Your task to perform on an android device: View the shopping cart on newegg. Image 0: 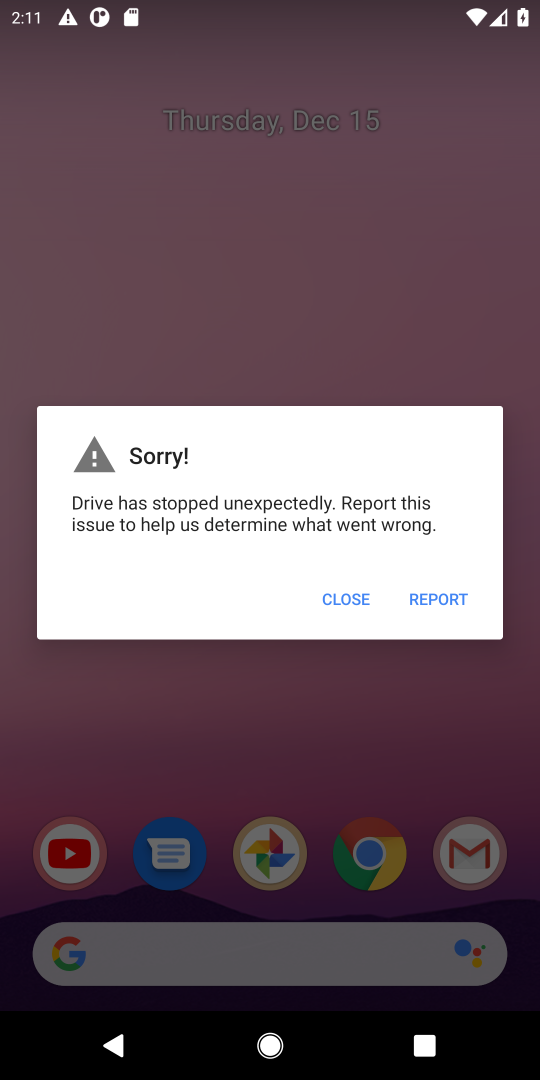
Step 0: press home button
Your task to perform on an android device: View the shopping cart on newegg. Image 1: 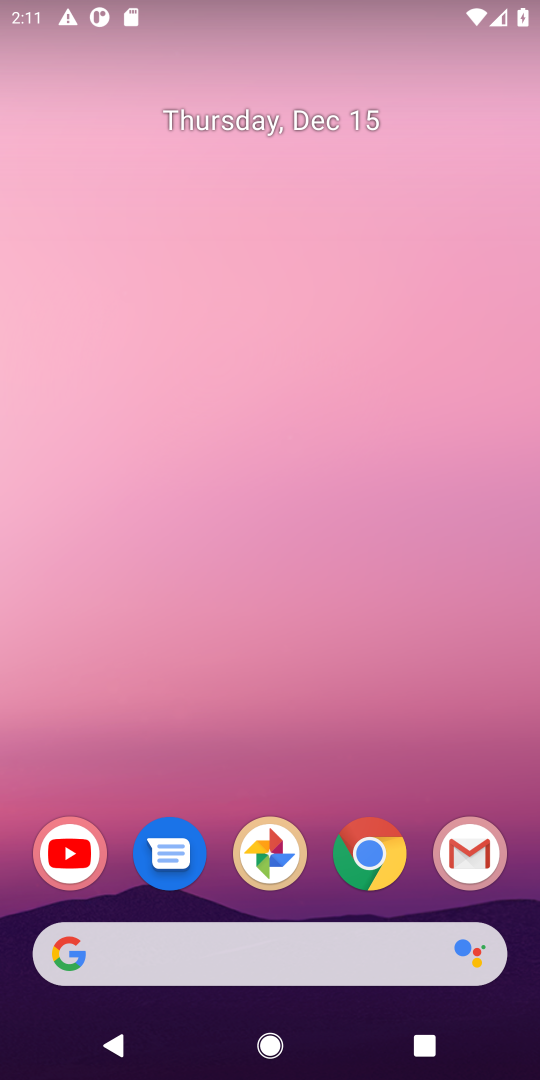
Step 1: drag from (174, 877) to (173, 318)
Your task to perform on an android device: View the shopping cart on newegg. Image 2: 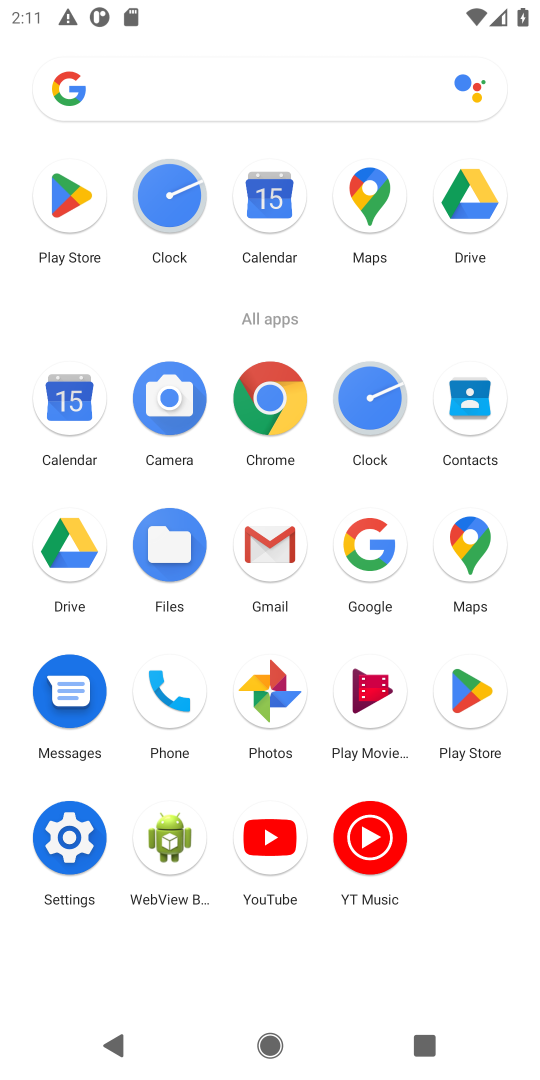
Step 2: click (388, 560)
Your task to perform on an android device: View the shopping cart on newegg. Image 3: 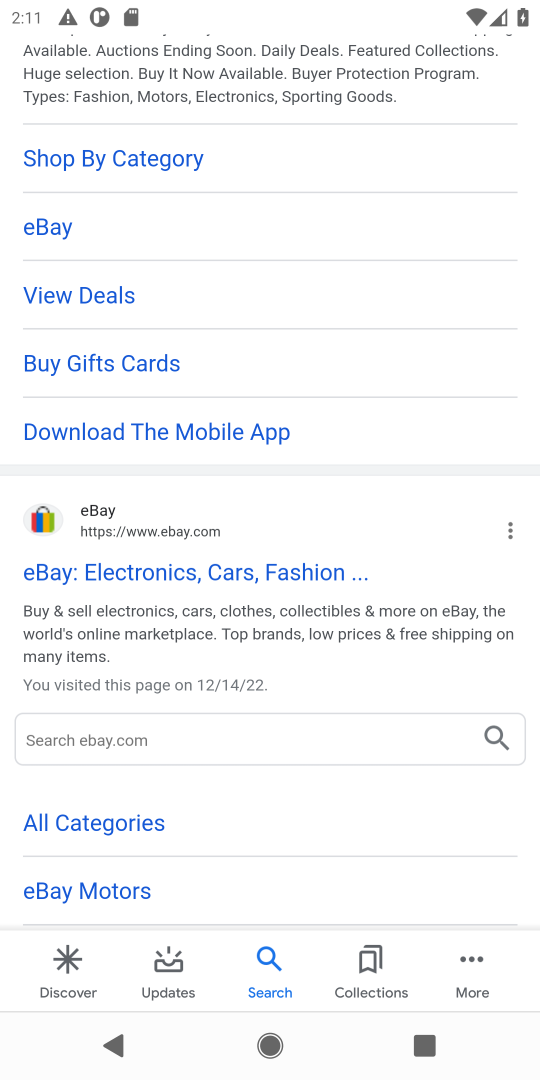
Step 3: drag from (106, 149) to (186, 782)
Your task to perform on an android device: View the shopping cart on newegg. Image 4: 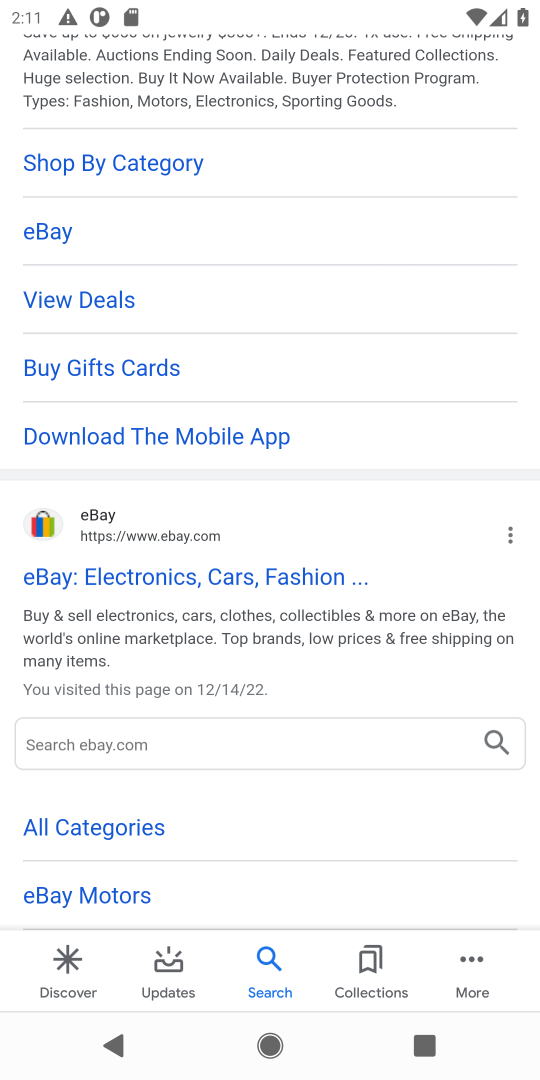
Step 4: drag from (121, 160) to (253, 882)
Your task to perform on an android device: View the shopping cart on newegg. Image 5: 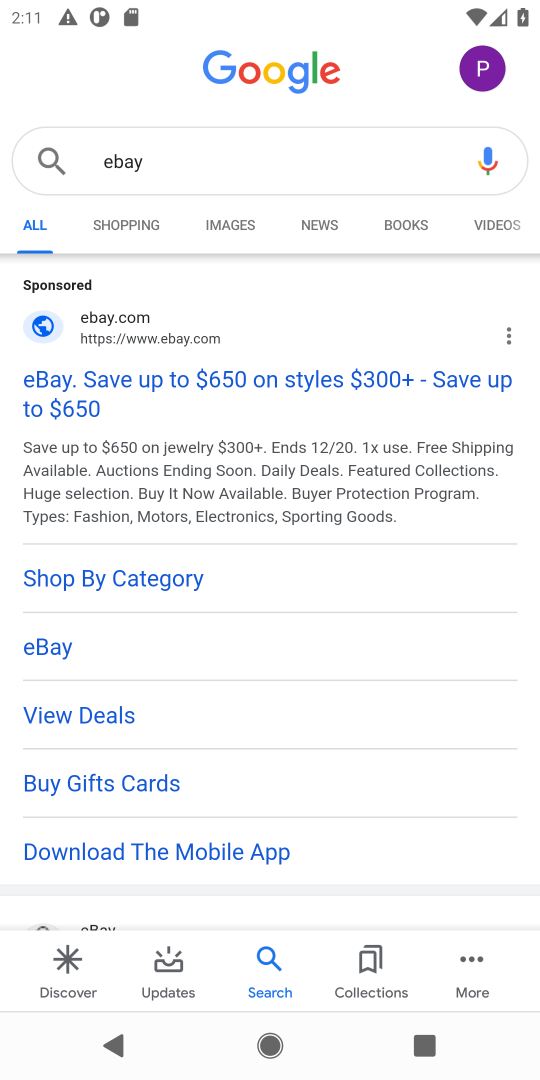
Step 5: click (121, 169)
Your task to perform on an android device: View the shopping cart on newegg. Image 6: 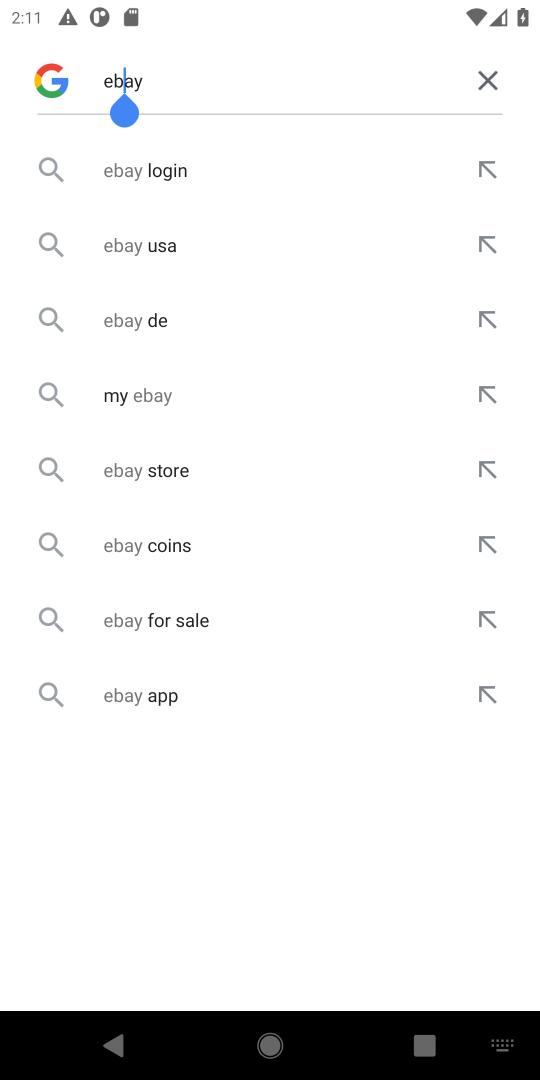
Step 6: click (495, 83)
Your task to perform on an android device: View the shopping cart on newegg. Image 7: 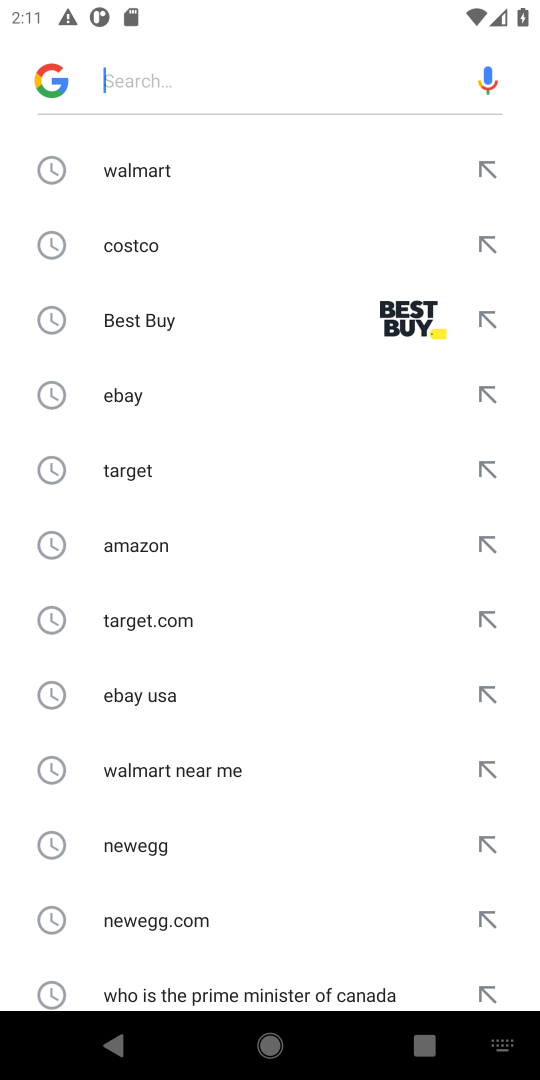
Step 7: click (124, 862)
Your task to perform on an android device: View the shopping cart on newegg. Image 8: 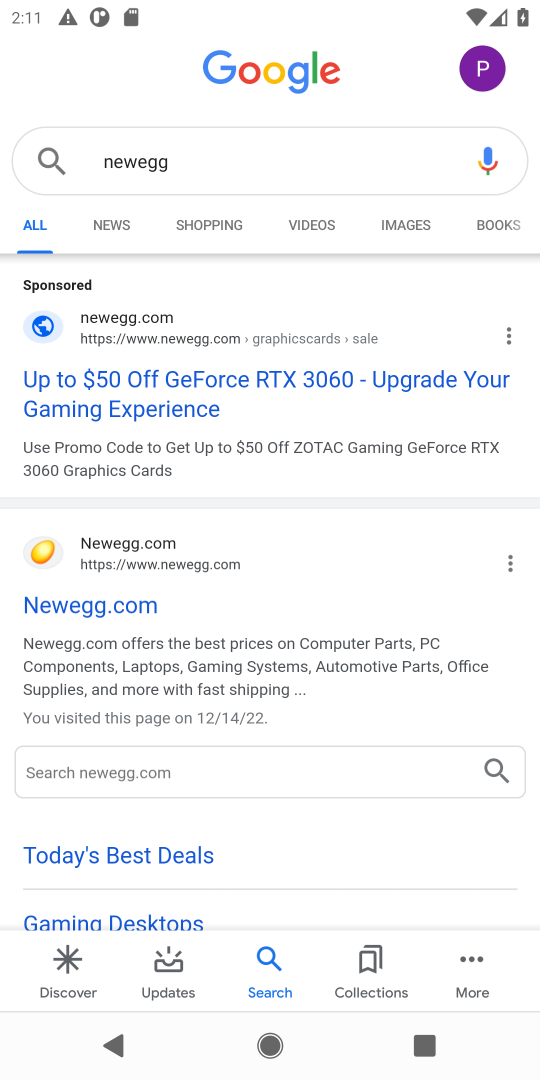
Step 8: click (88, 608)
Your task to perform on an android device: View the shopping cart on newegg. Image 9: 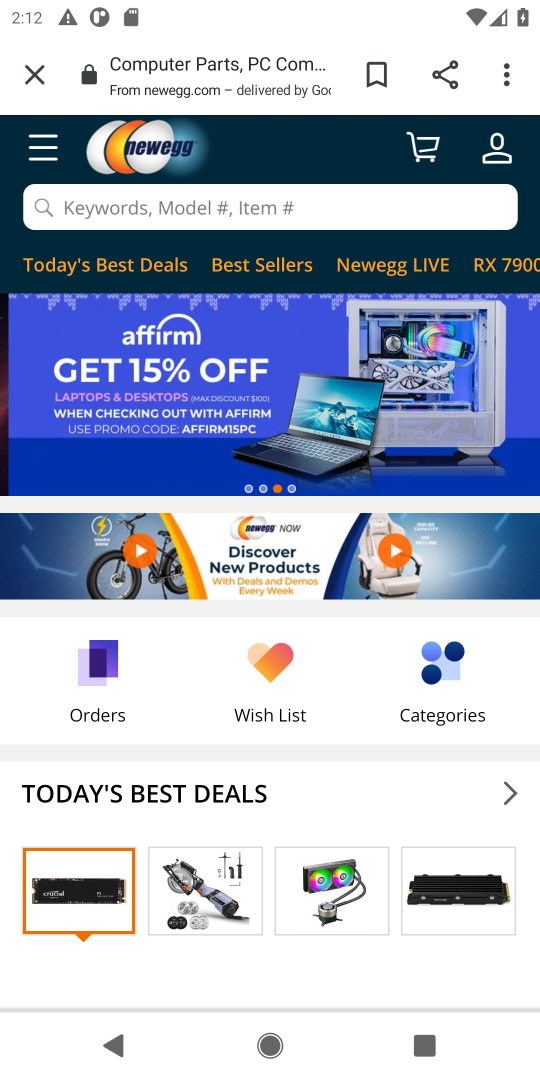
Step 9: click (430, 141)
Your task to perform on an android device: View the shopping cart on newegg. Image 10: 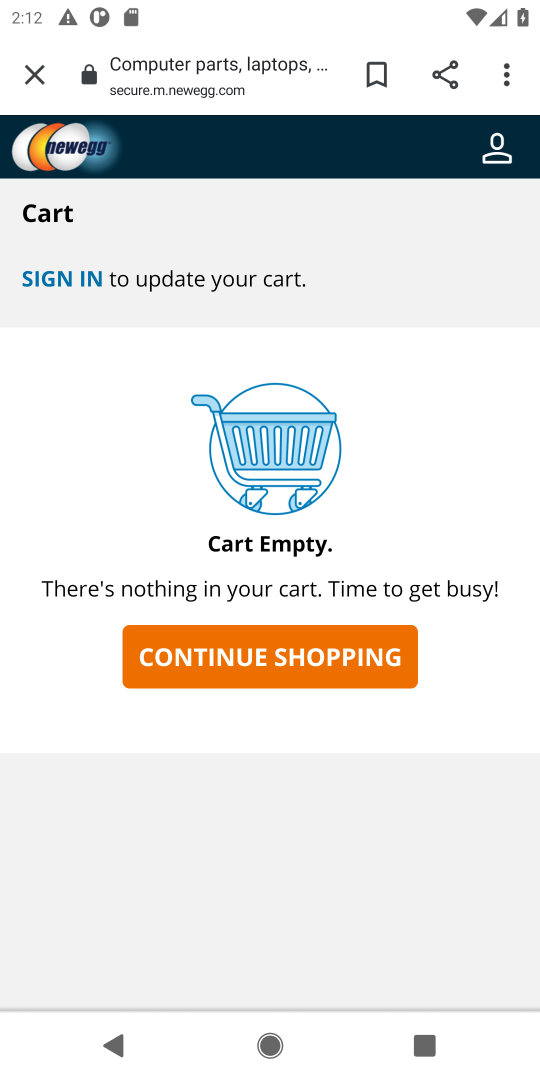
Step 10: task complete